Your task to perform on an android device: Open Reddit.com Image 0: 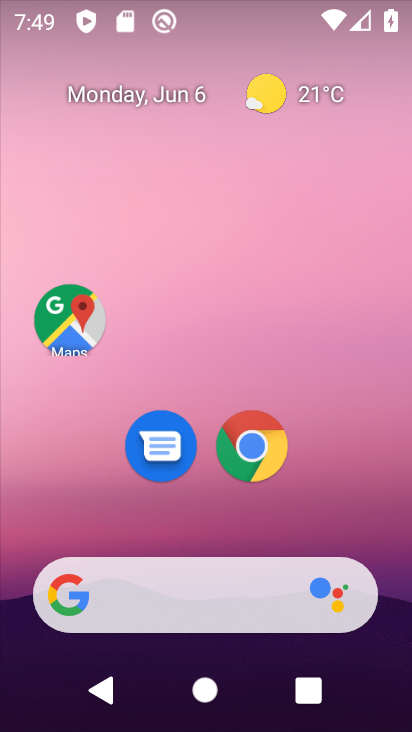
Step 0: click (242, 443)
Your task to perform on an android device: Open Reddit.com Image 1: 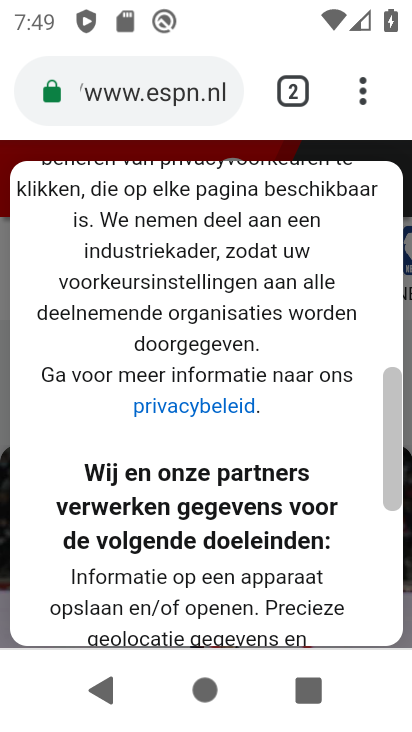
Step 1: click (292, 85)
Your task to perform on an android device: Open Reddit.com Image 2: 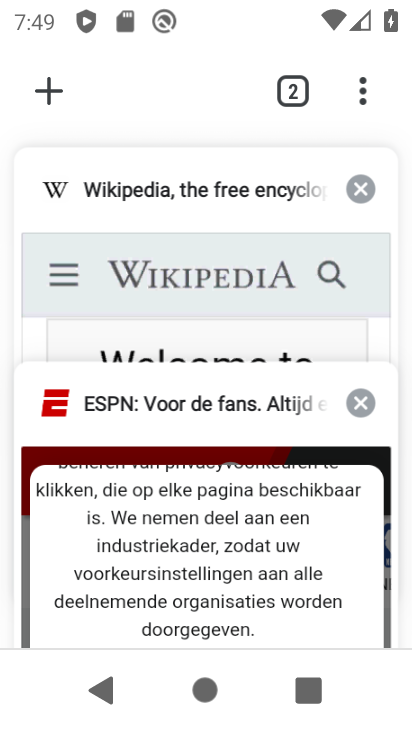
Step 2: click (49, 85)
Your task to perform on an android device: Open Reddit.com Image 3: 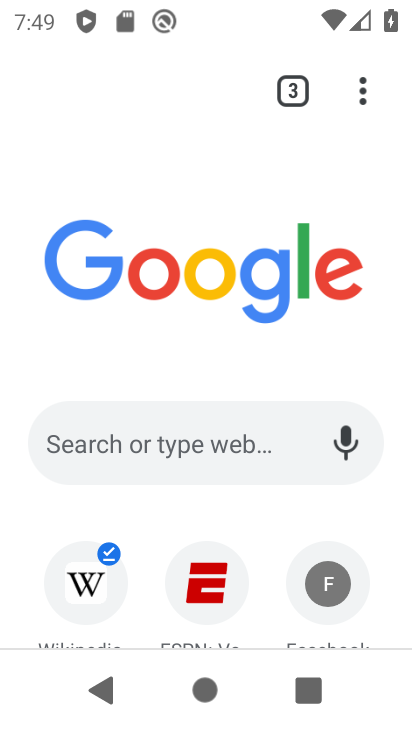
Step 3: drag from (221, 508) to (219, 361)
Your task to perform on an android device: Open Reddit.com Image 4: 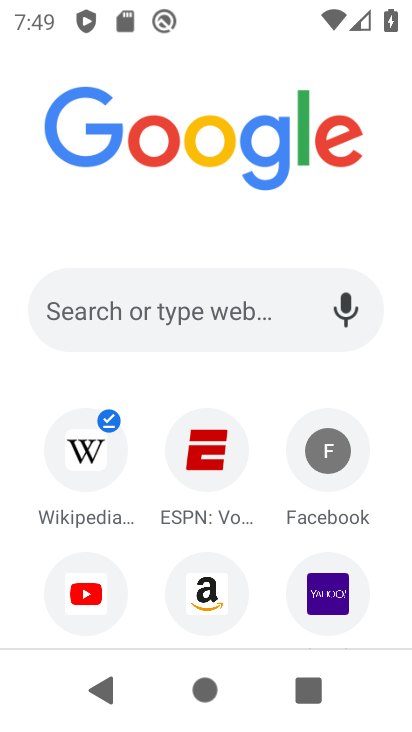
Step 4: click (177, 321)
Your task to perform on an android device: Open Reddit.com Image 5: 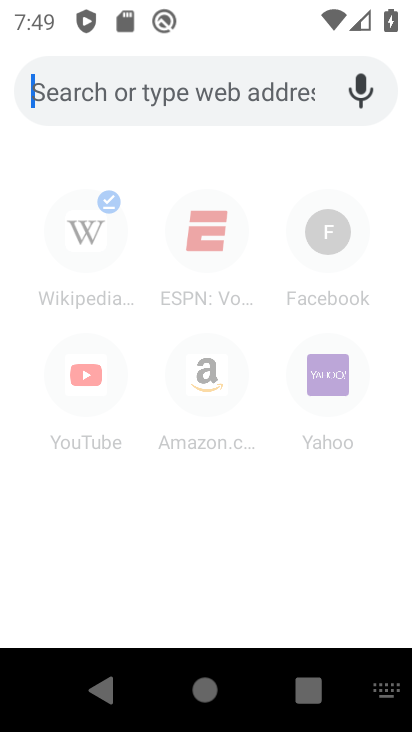
Step 5: type "Reddit.com"
Your task to perform on an android device: Open Reddit.com Image 6: 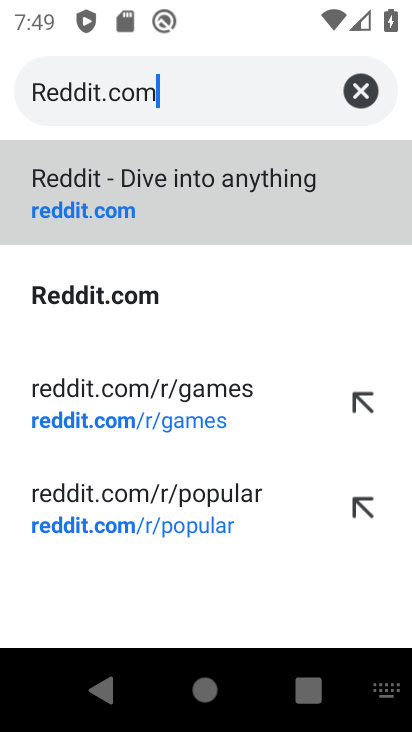
Step 6: click (113, 199)
Your task to perform on an android device: Open Reddit.com Image 7: 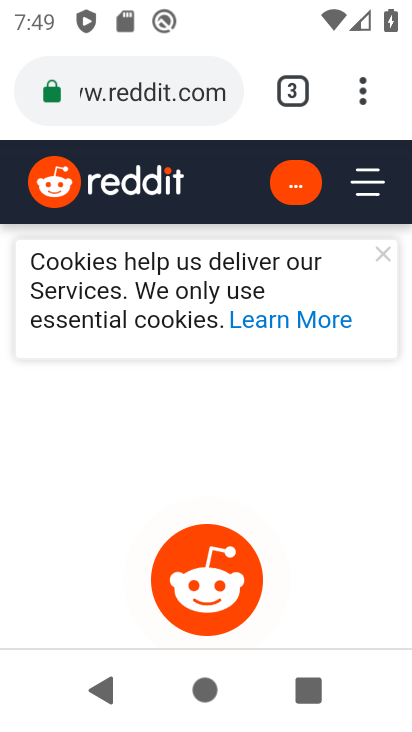
Step 7: task complete